Your task to perform on an android device: Search for Mexican restaurants on Maps Image 0: 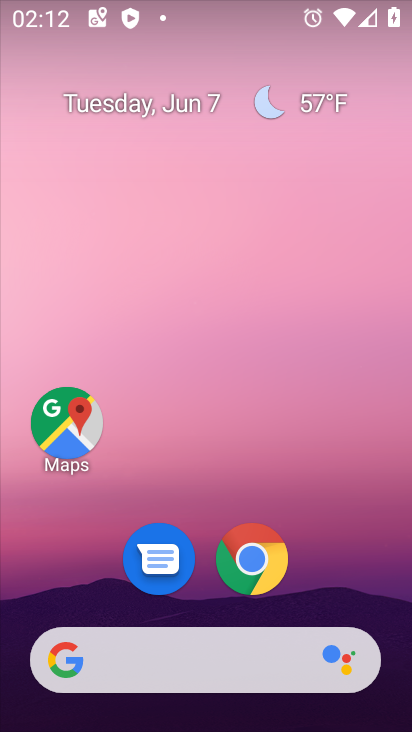
Step 0: click (70, 421)
Your task to perform on an android device: Search for Mexican restaurants on Maps Image 1: 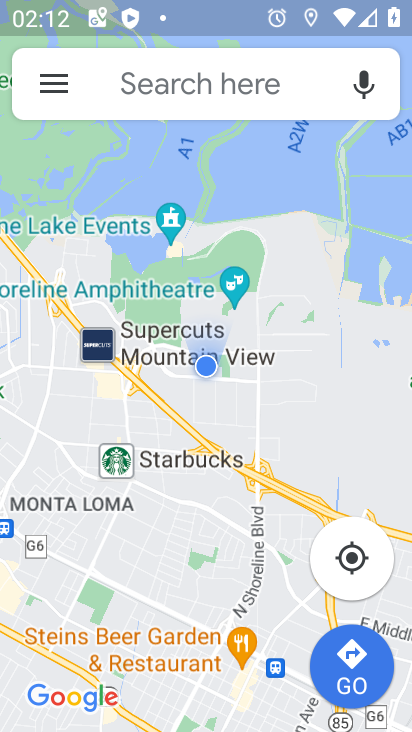
Step 1: click (181, 94)
Your task to perform on an android device: Search for Mexican restaurants on Maps Image 2: 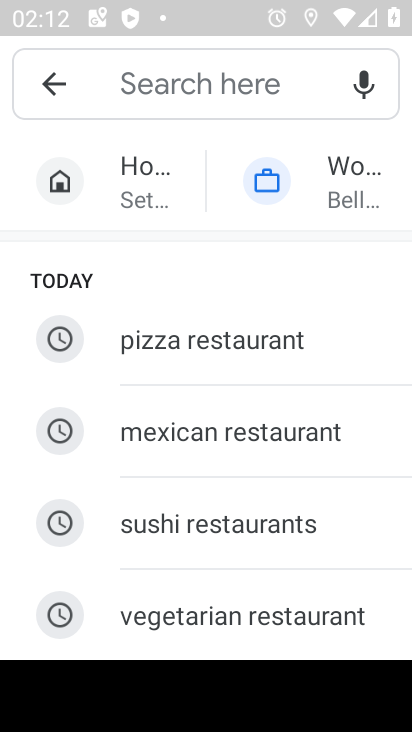
Step 2: click (331, 426)
Your task to perform on an android device: Search for Mexican restaurants on Maps Image 3: 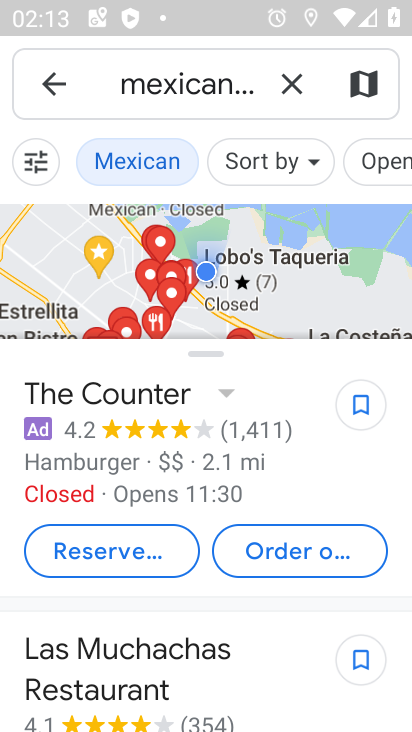
Step 3: task complete